Your task to perform on an android device: Open location settings Image 0: 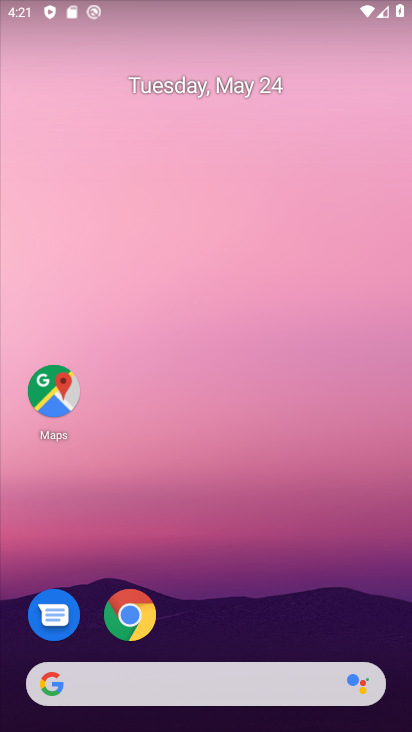
Step 0: drag from (212, 634) to (195, 215)
Your task to perform on an android device: Open location settings Image 1: 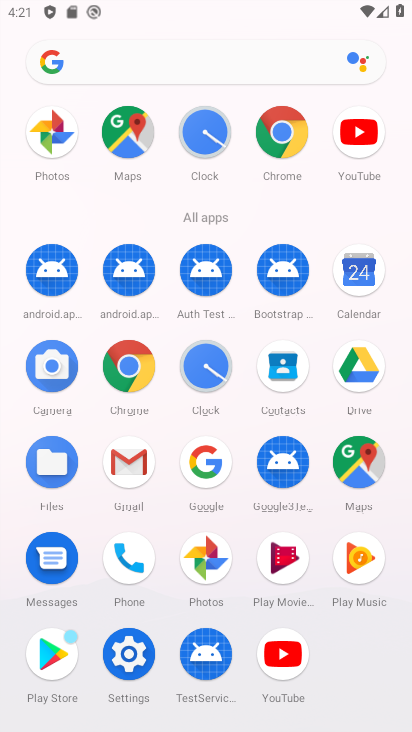
Step 1: click (127, 660)
Your task to perform on an android device: Open location settings Image 2: 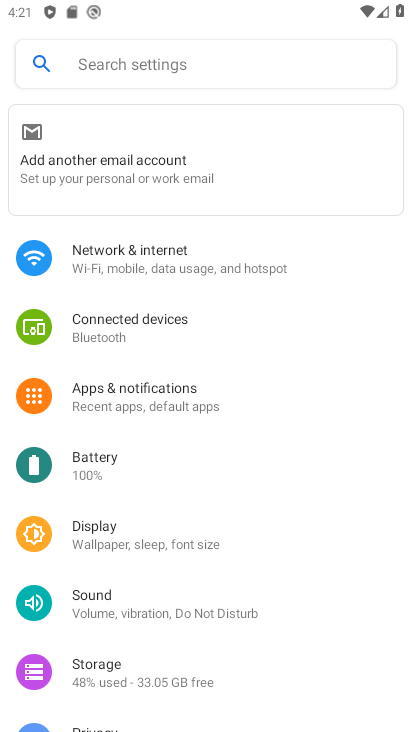
Step 2: drag from (228, 676) to (192, 223)
Your task to perform on an android device: Open location settings Image 3: 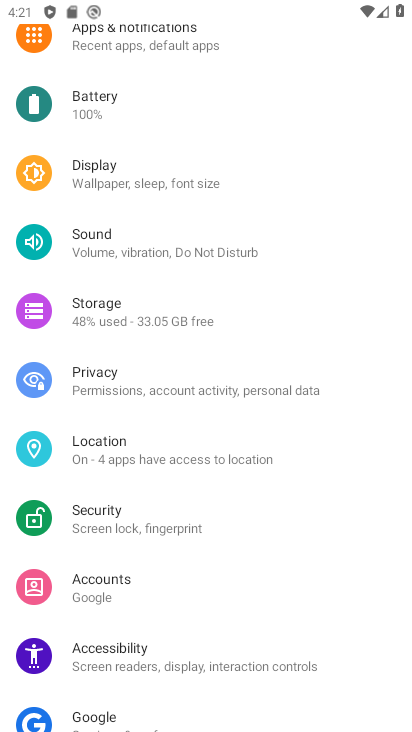
Step 3: click (162, 439)
Your task to perform on an android device: Open location settings Image 4: 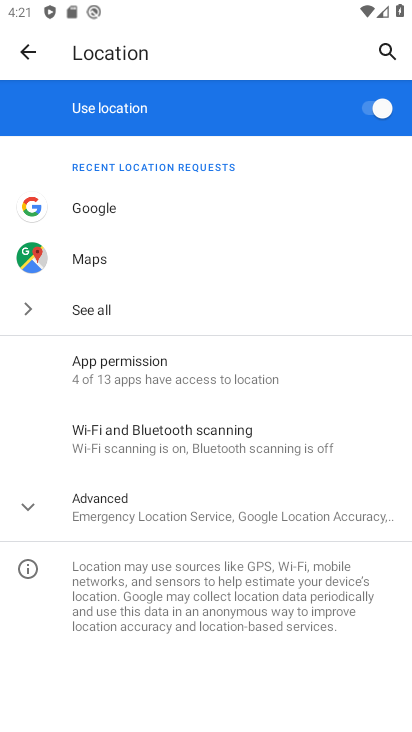
Step 4: task complete